Your task to perform on an android device: Show me recent news Image 0: 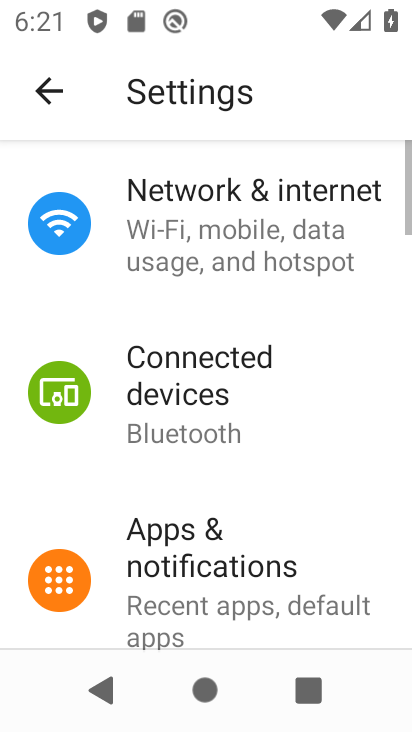
Step 0: press home button
Your task to perform on an android device: Show me recent news Image 1: 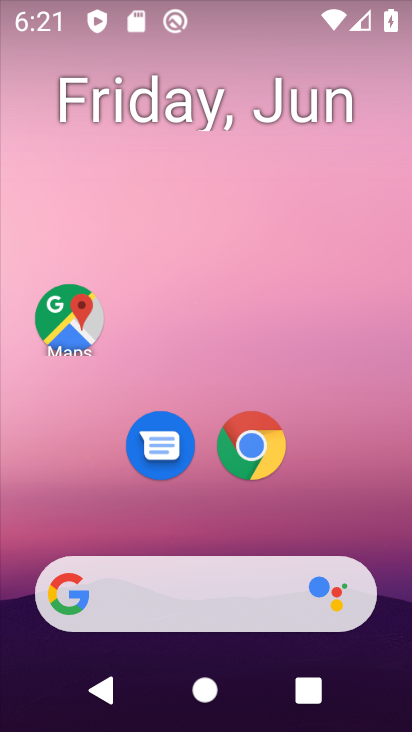
Step 1: click (173, 599)
Your task to perform on an android device: Show me recent news Image 2: 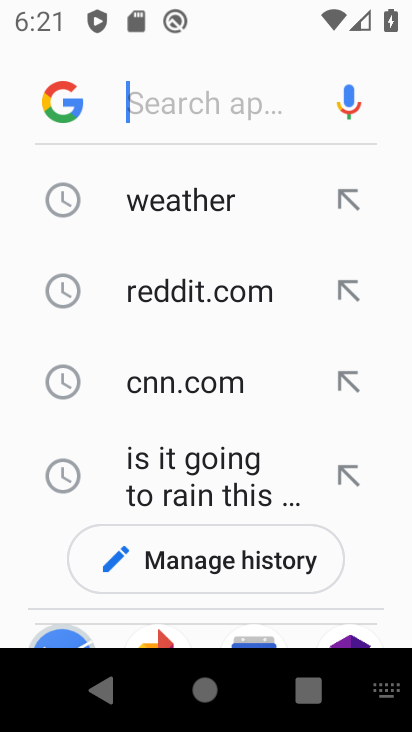
Step 2: click (210, 113)
Your task to perform on an android device: Show me recent news Image 3: 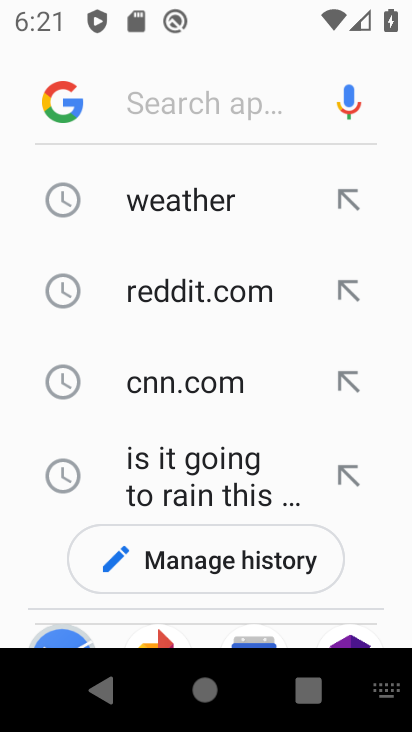
Step 3: type "recent news"
Your task to perform on an android device: Show me recent news Image 4: 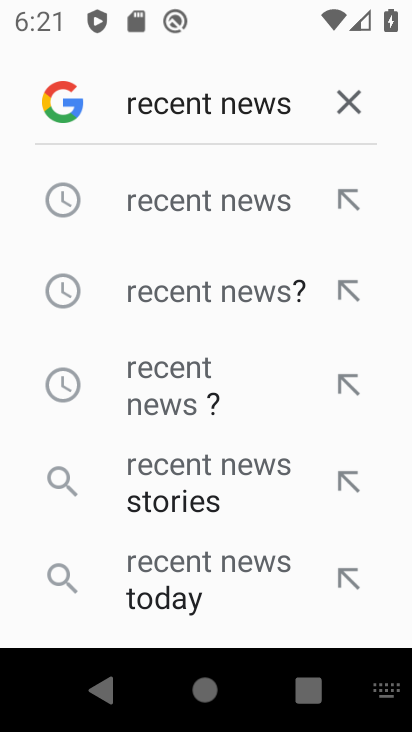
Step 4: click (272, 215)
Your task to perform on an android device: Show me recent news Image 5: 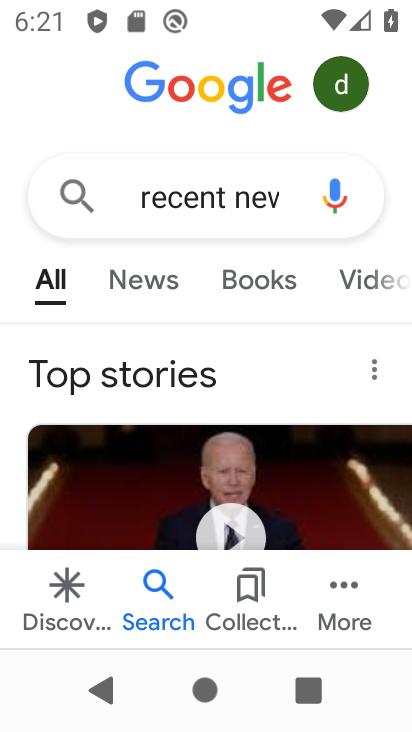
Step 5: task complete